Your task to perform on an android device: turn notification dots off Image 0: 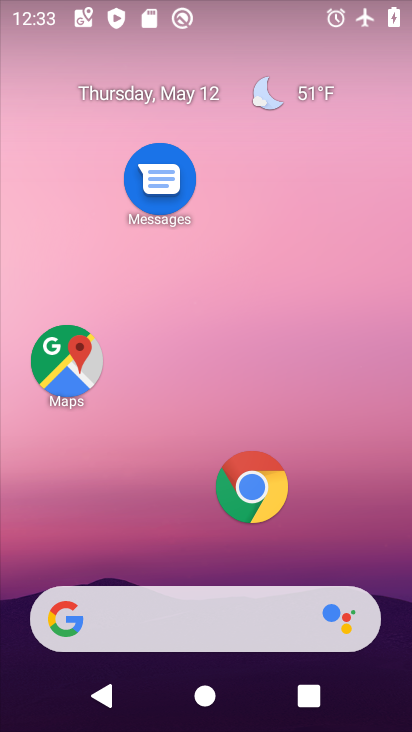
Step 0: drag from (183, 533) to (218, 174)
Your task to perform on an android device: turn notification dots off Image 1: 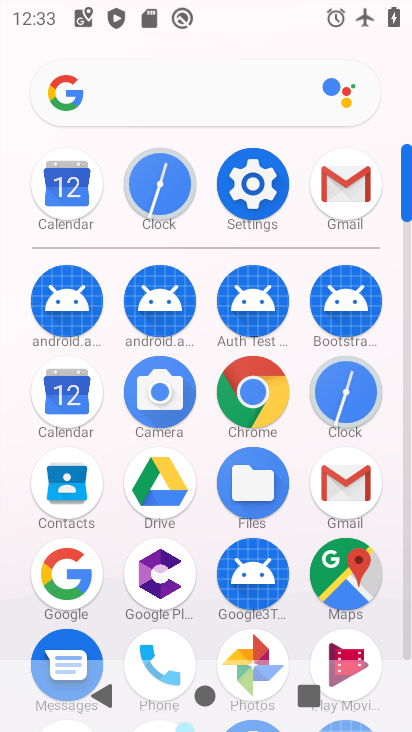
Step 1: click (253, 201)
Your task to perform on an android device: turn notification dots off Image 2: 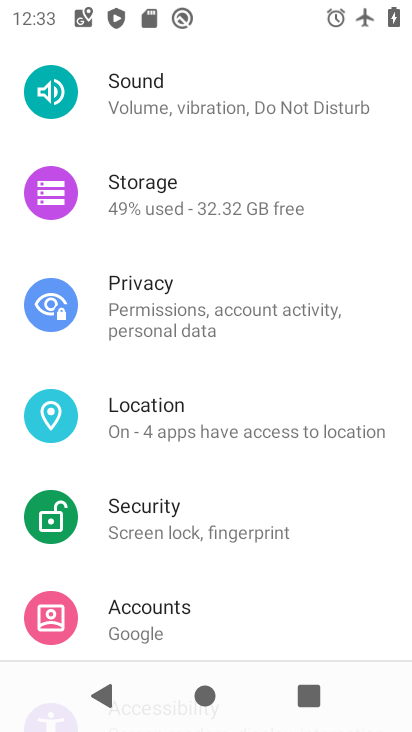
Step 2: drag from (201, 559) to (242, 261)
Your task to perform on an android device: turn notification dots off Image 3: 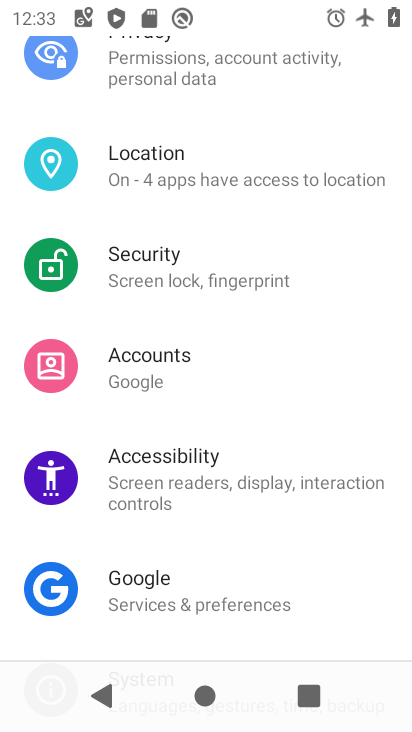
Step 3: drag from (242, 261) to (231, 556)
Your task to perform on an android device: turn notification dots off Image 4: 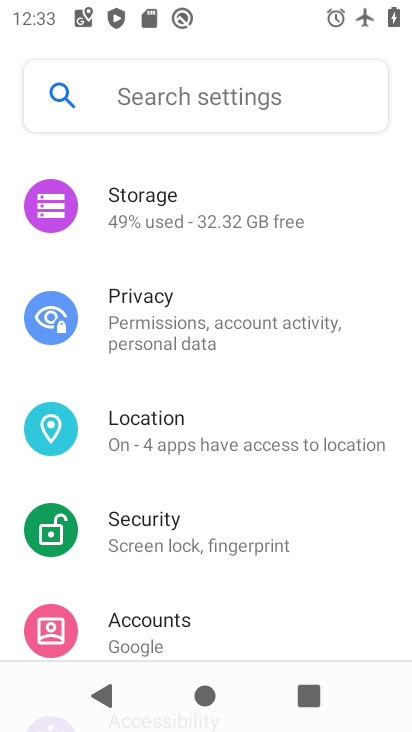
Step 4: drag from (244, 241) to (243, 534)
Your task to perform on an android device: turn notification dots off Image 5: 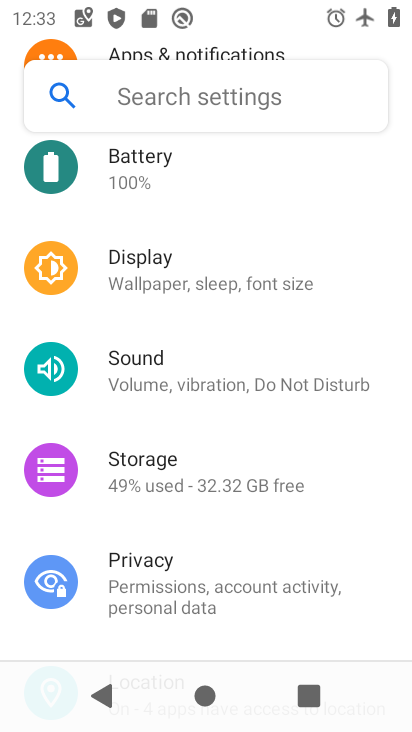
Step 5: drag from (212, 189) to (182, 467)
Your task to perform on an android device: turn notification dots off Image 6: 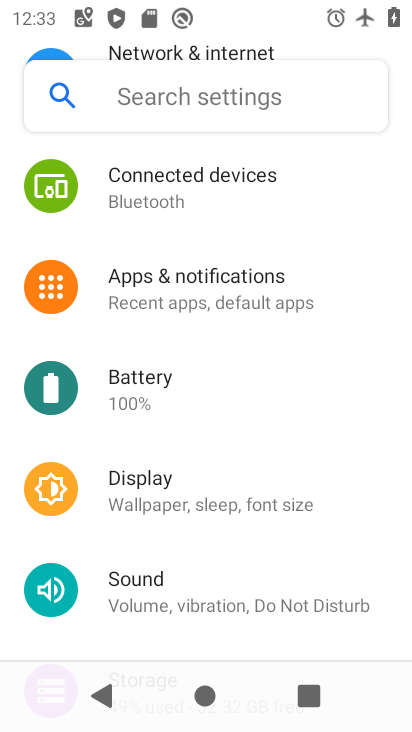
Step 6: click (151, 300)
Your task to perform on an android device: turn notification dots off Image 7: 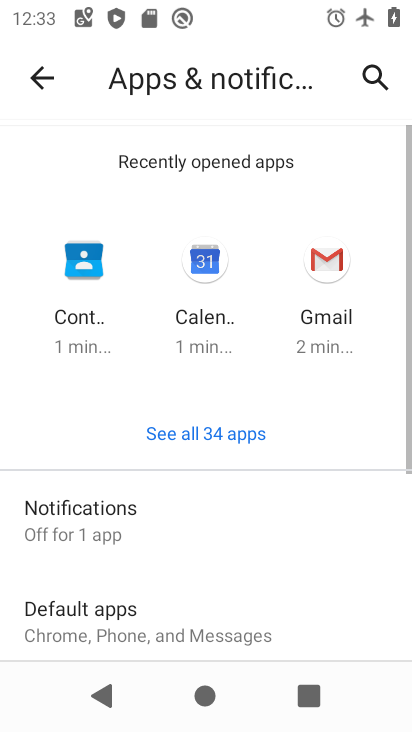
Step 7: drag from (182, 525) to (248, 275)
Your task to perform on an android device: turn notification dots off Image 8: 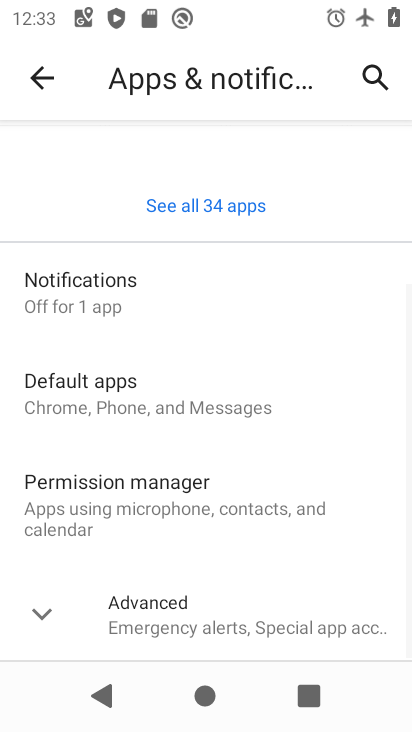
Step 8: click (58, 300)
Your task to perform on an android device: turn notification dots off Image 9: 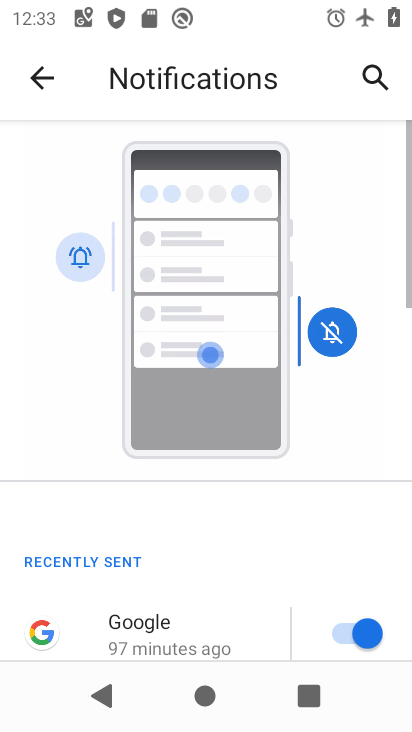
Step 9: drag from (257, 564) to (316, 74)
Your task to perform on an android device: turn notification dots off Image 10: 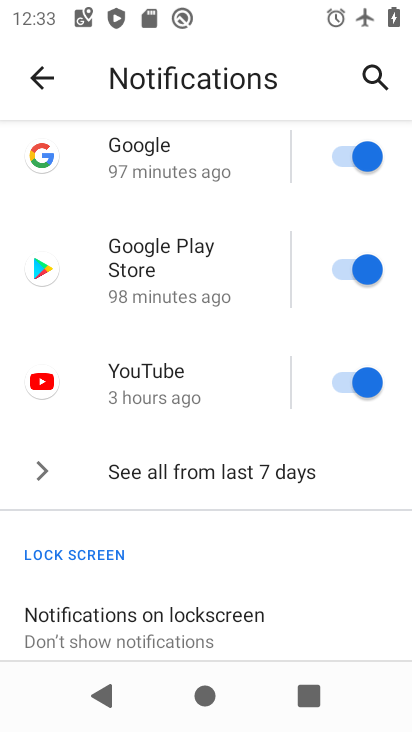
Step 10: drag from (232, 582) to (256, 254)
Your task to perform on an android device: turn notification dots off Image 11: 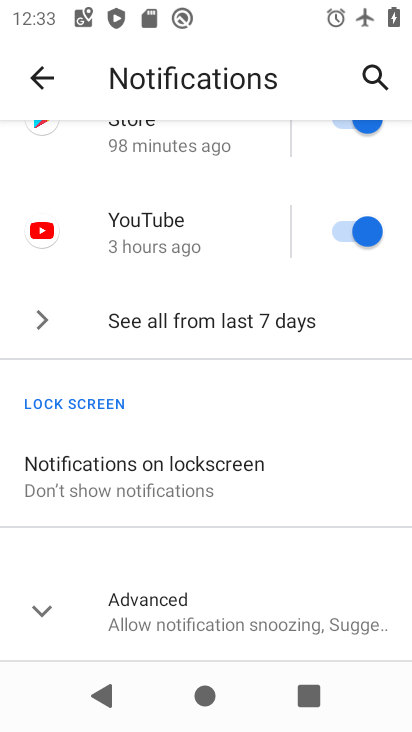
Step 11: click (231, 608)
Your task to perform on an android device: turn notification dots off Image 12: 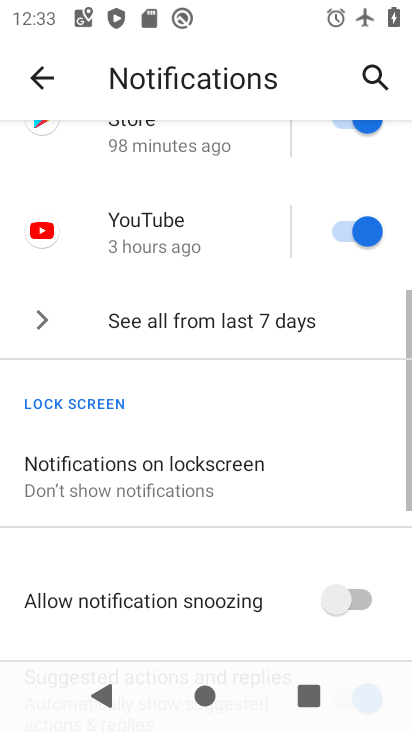
Step 12: drag from (225, 606) to (243, 229)
Your task to perform on an android device: turn notification dots off Image 13: 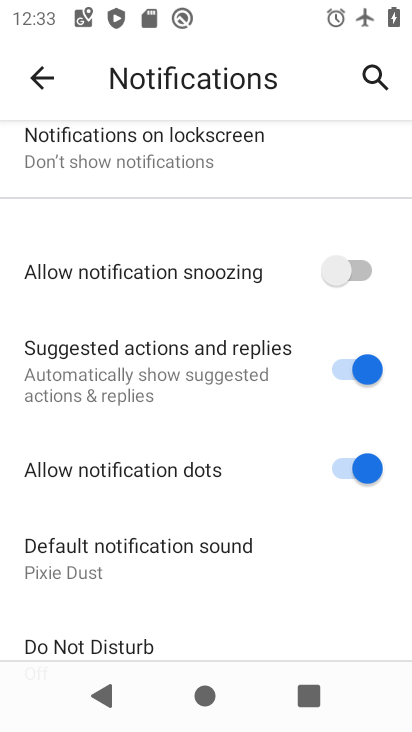
Step 13: click (347, 461)
Your task to perform on an android device: turn notification dots off Image 14: 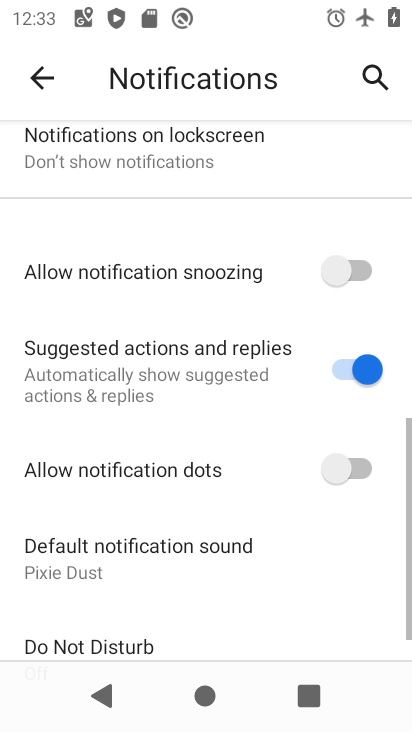
Step 14: task complete